Your task to perform on an android device: find photos in the google photos app Image 0: 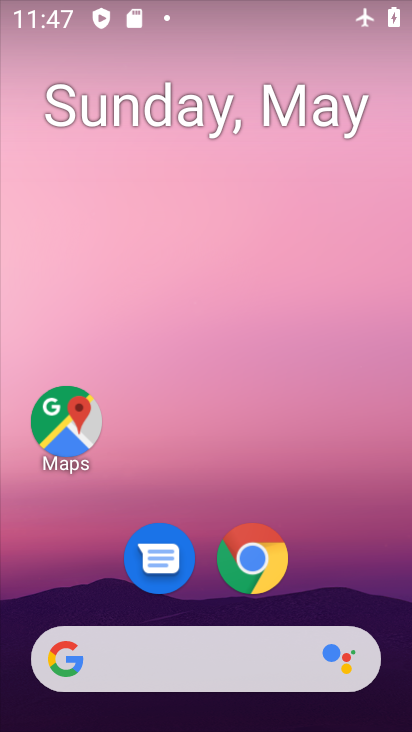
Step 0: drag from (397, 588) to (386, 121)
Your task to perform on an android device: find photos in the google photos app Image 1: 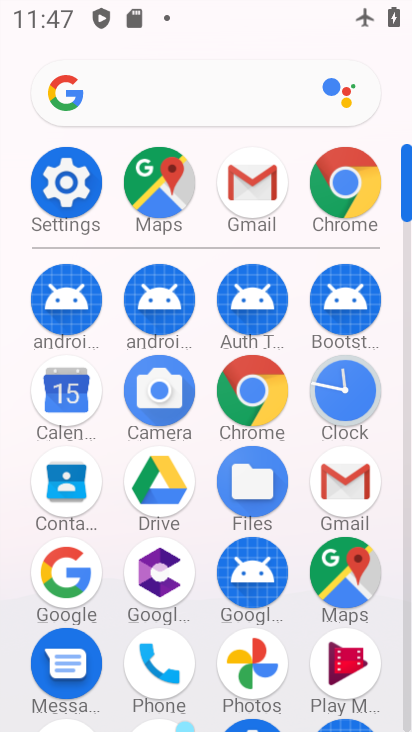
Step 1: click (254, 662)
Your task to perform on an android device: find photos in the google photos app Image 2: 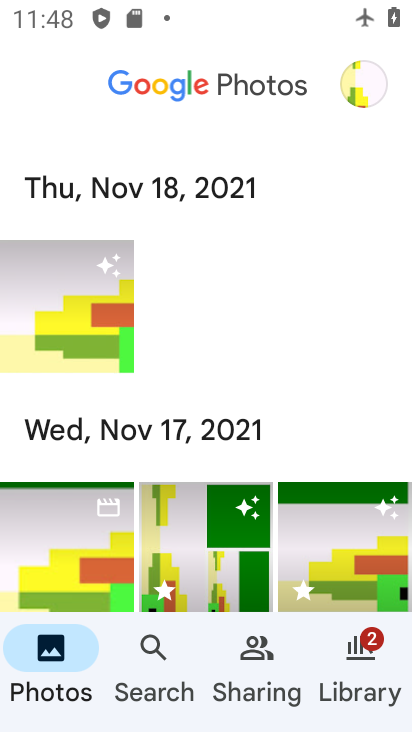
Step 2: click (47, 293)
Your task to perform on an android device: find photos in the google photos app Image 3: 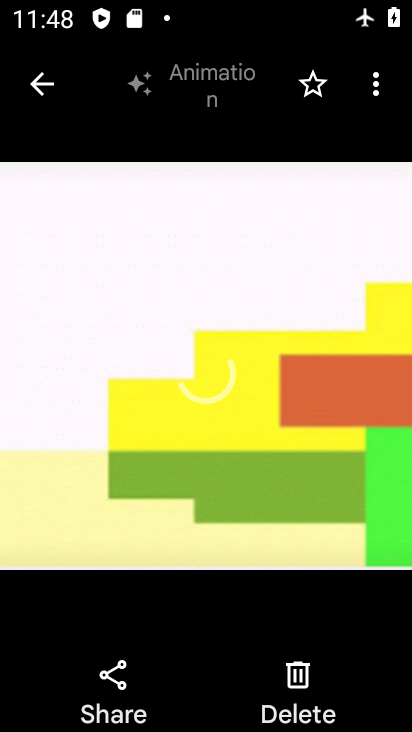
Step 3: task complete